Your task to perform on an android device: open app "Google Keep" (install if not already installed) Image 0: 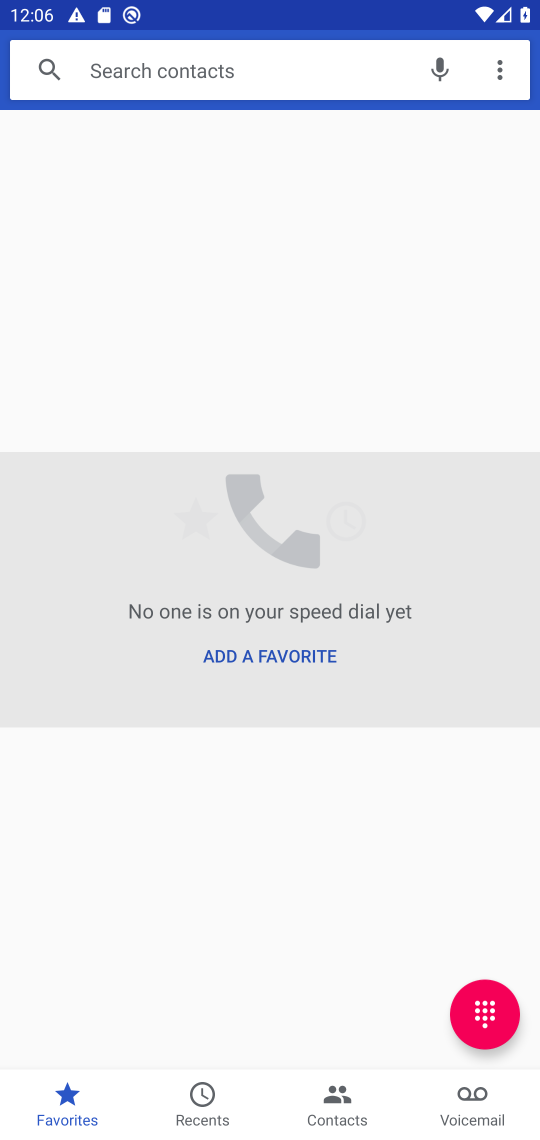
Step 0: press home button
Your task to perform on an android device: open app "Google Keep" (install if not already installed) Image 1: 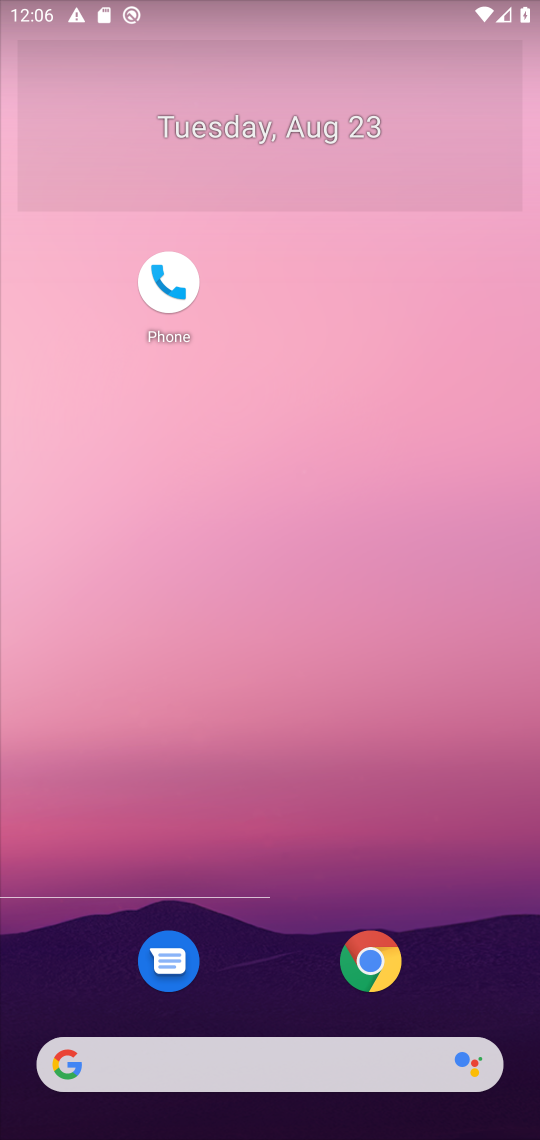
Step 1: drag from (270, 997) to (352, 29)
Your task to perform on an android device: open app "Google Keep" (install if not already installed) Image 2: 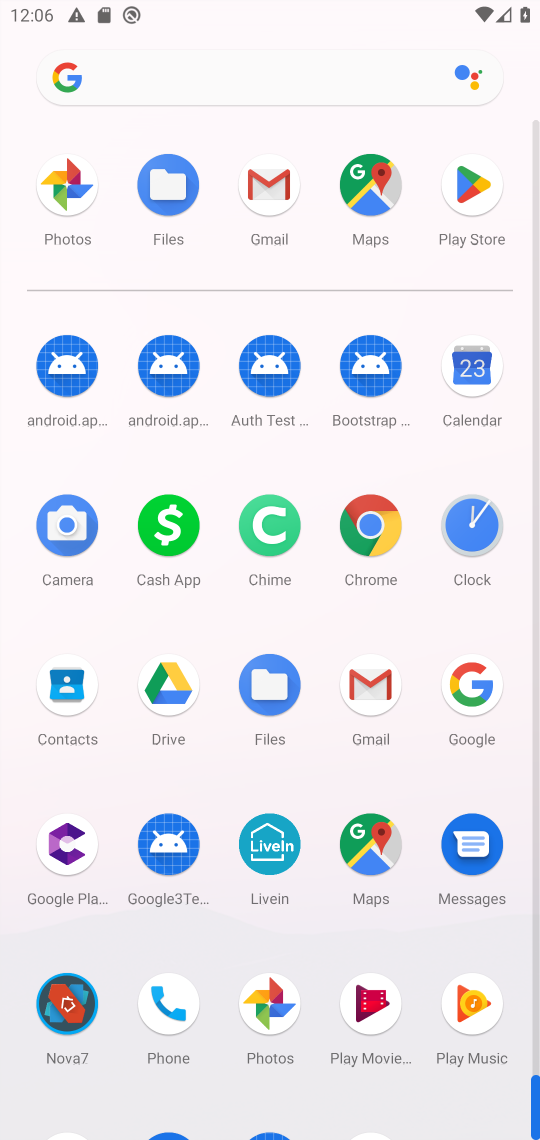
Step 2: click (485, 199)
Your task to perform on an android device: open app "Google Keep" (install if not already installed) Image 3: 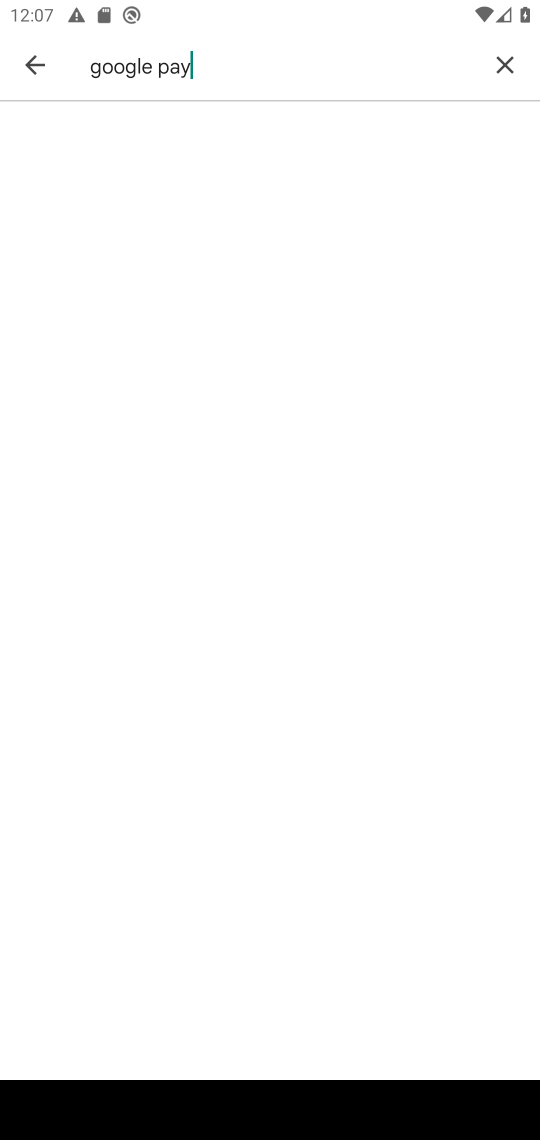
Step 3: click (503, 73)
Your task to perform on an android device: open app "Google Keep" (install if not already installed) Image 4: 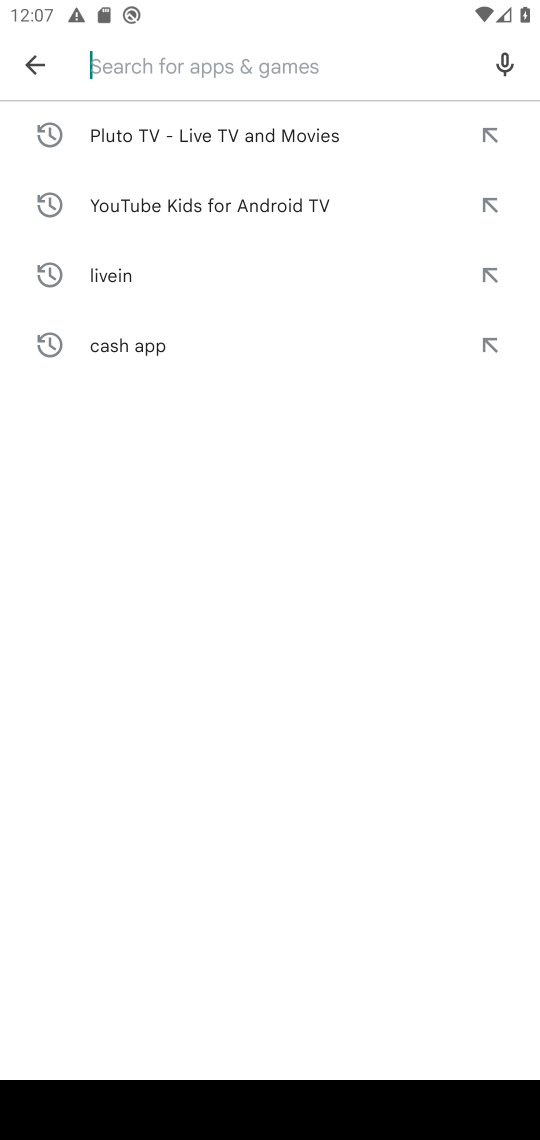
Step 4: type "google keep"
Your task to perform on an android device: open app "Google Keep" (install if not already installed) Image 5: 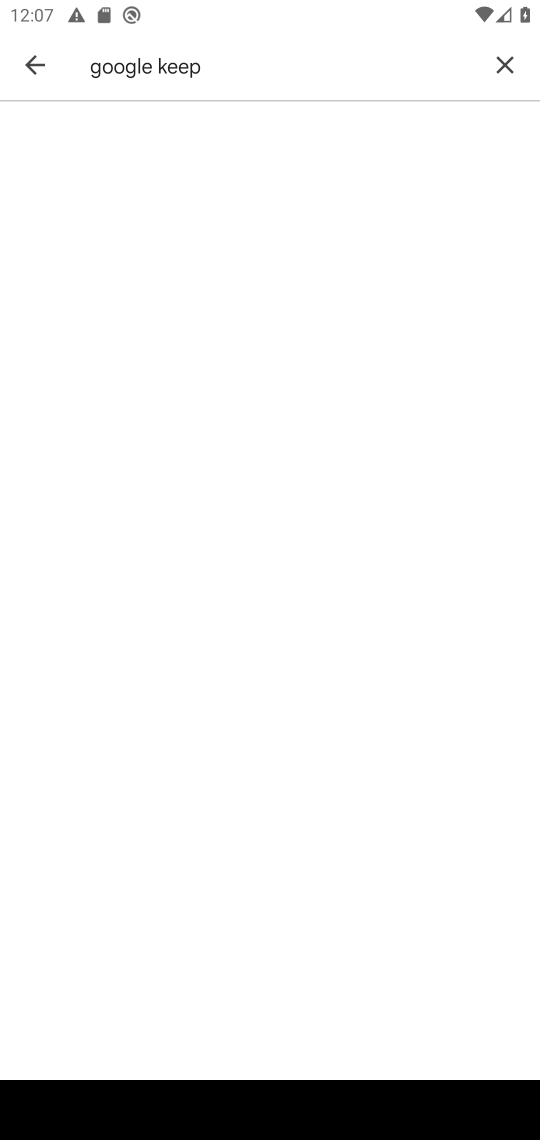
Step 5: task complete